Your task to perform on an android device: toggle sleep mode Image 0: 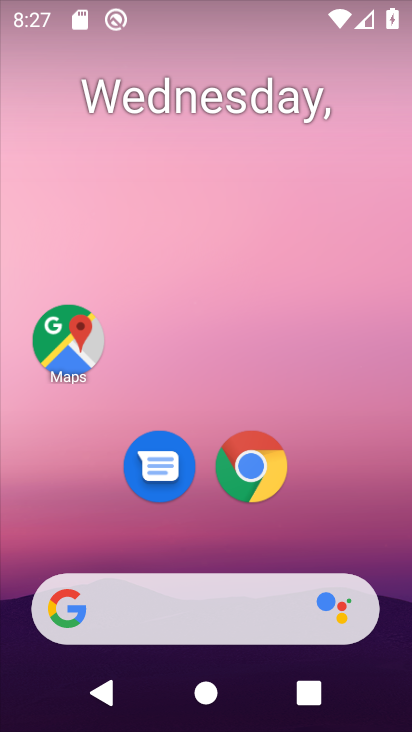
Step 0: drag from (220, 726) to (232, 208)
Your task to perform on an android device: toggle sleep mode Image 1: 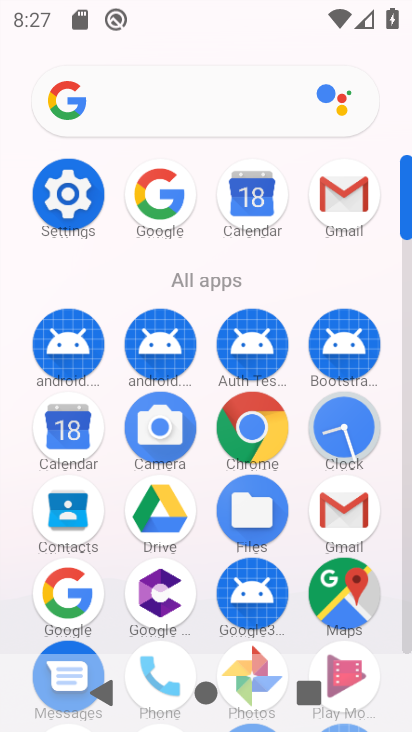
Step 1: click (62, 197)
Your task to perform on an android device: toggle sleep mode Image 2: 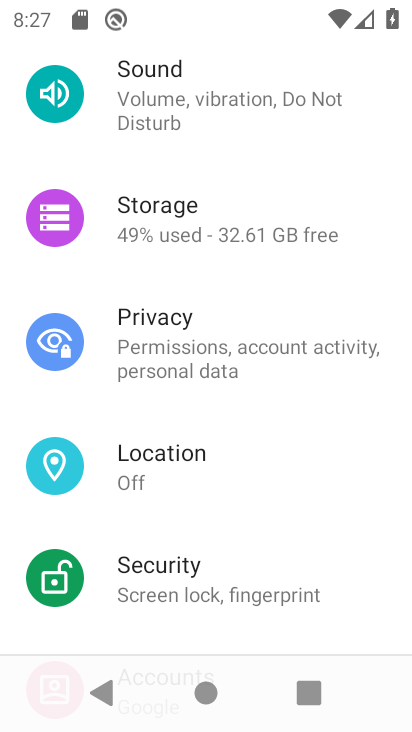
Step 2: task complete